Your task to perform on an android device: Find coffee shops on Maps Image 0: 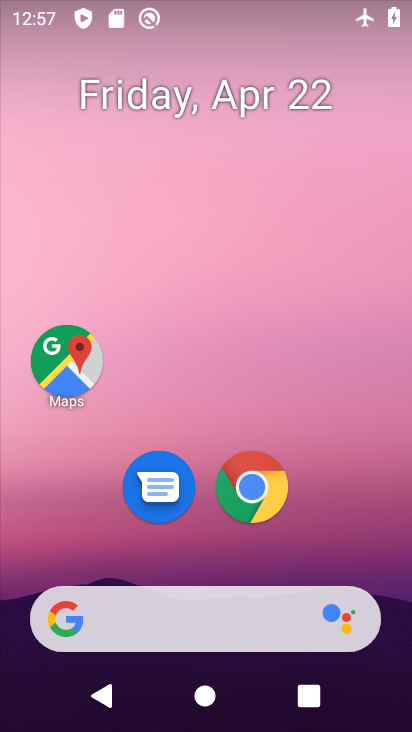
Step 0: click (69, 359)
Your task to perform on an android device: Find coffee shops on Maps Image 1: 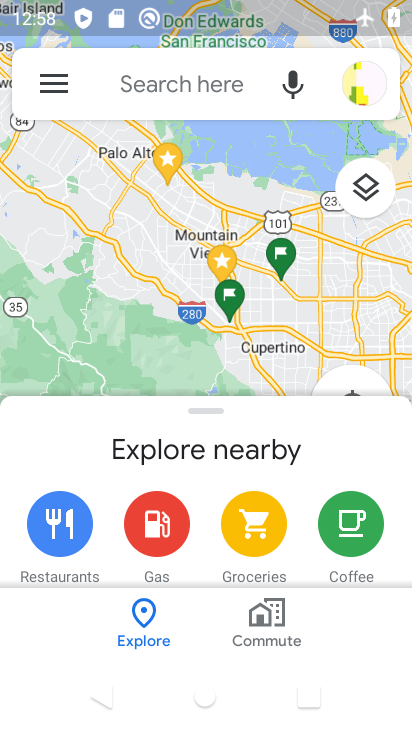
Step 1: click (164, 80)
Your task to perform on an android device: Find coffee shops on Maps Image 2: 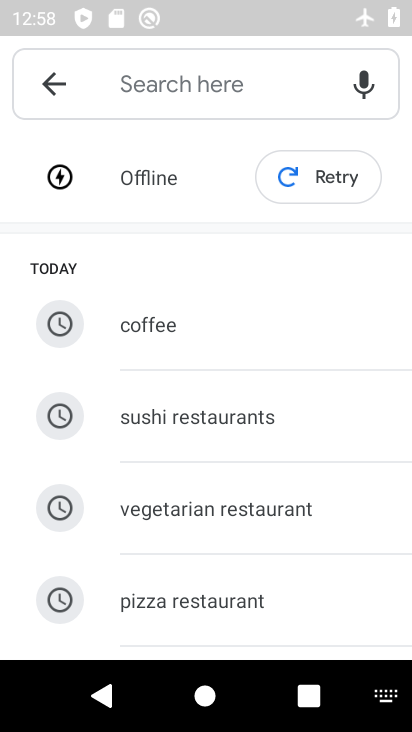
Step 2: type "coffee shops"
Your task to perform on an android device: Find coffee shops on Maps Image 3: 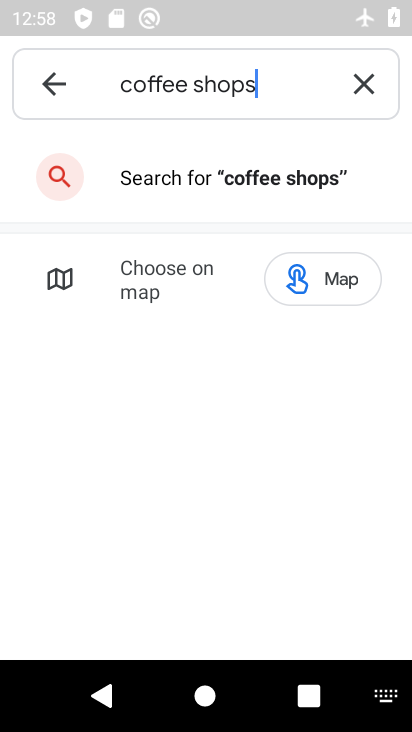
Step 3: click (319, 182)
Your task to perform on an android device: Find coffee shops on Maps Image 4: 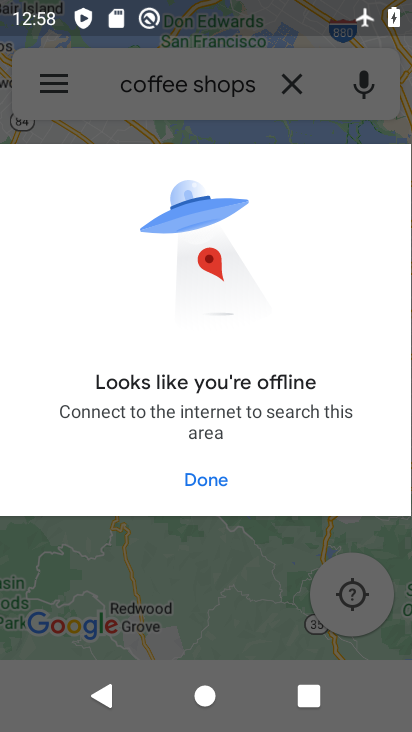
Step 4: task complete